Your task to perform on an android device: Check the news Image 0: 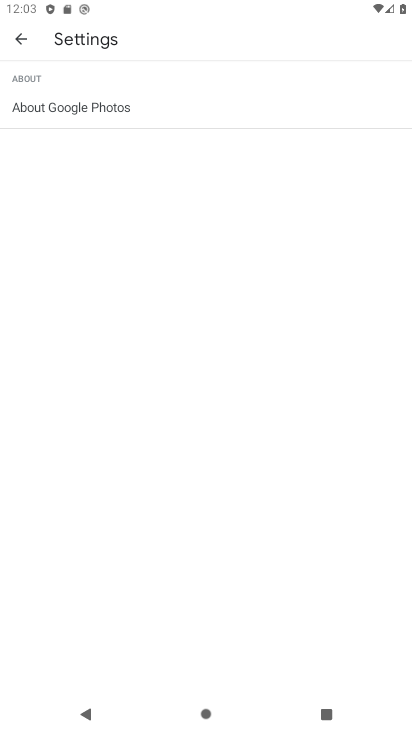
Step 0: press back button
Your task to perform on an android device: Check the news Image 1: 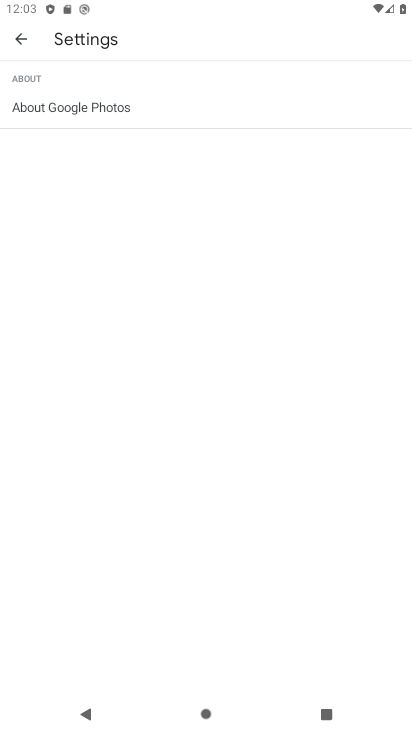
Step 1: press back button
Your task to perform on an android device: Check the news Image 2: 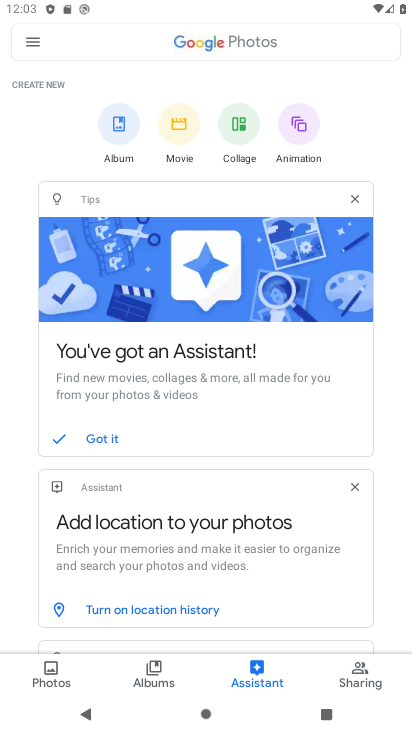
Step 2: press back button
Your task to perform on an android device: Check the news Image 3: 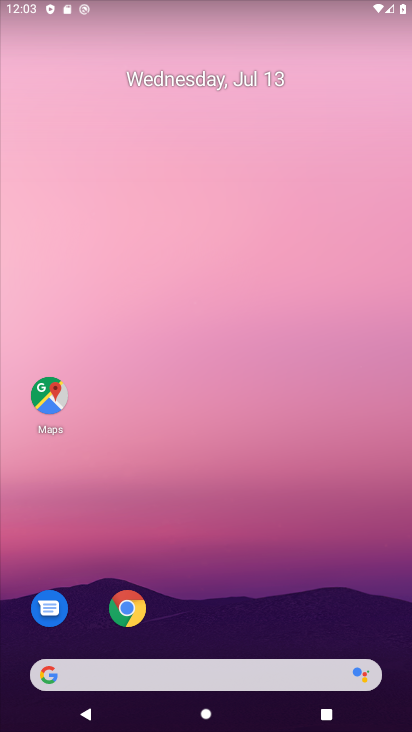
Step 3: click (126, 671)
Your task to perform on an android device: Check the news Image 4: 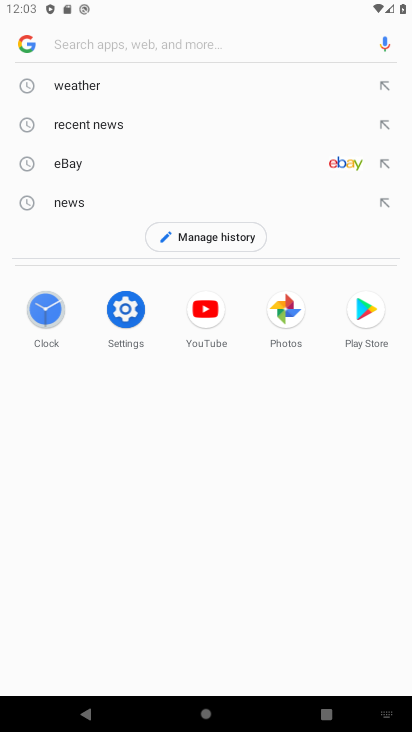
Step 4: click (71, 199)
Your task to perform on an android device: Check the news Image 5: 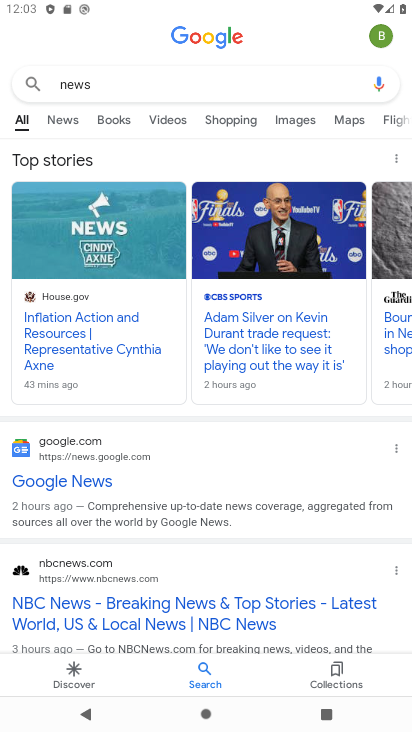
Step 5: task complete